Your task to perform on an android device: Go to network settings Image 0: 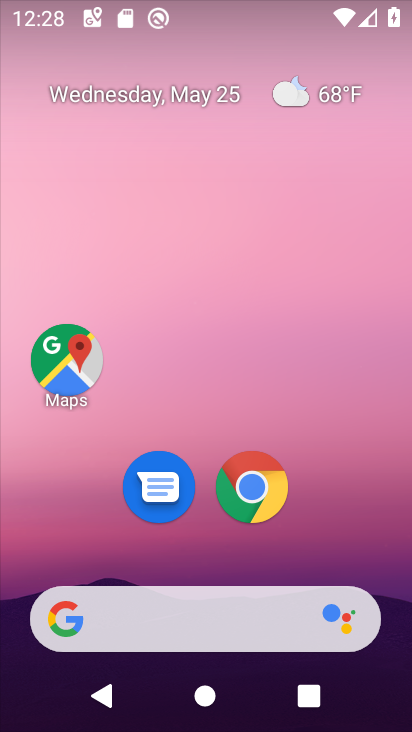
Step 0: drag from (204, 537) to (265, 80)
Your task to perform on an android device: Go to network settings Image 1: 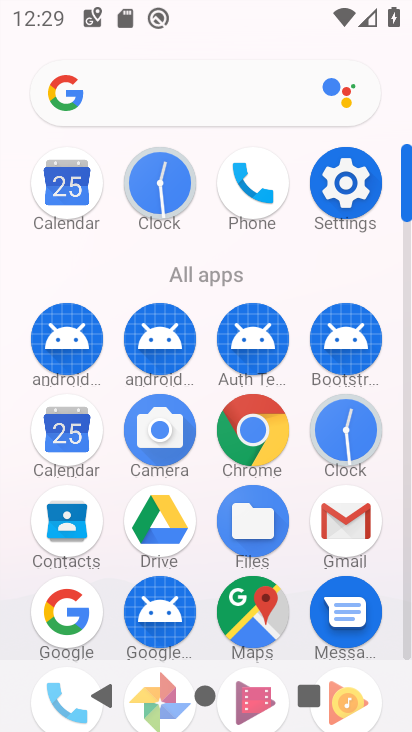
Step 1: click (344, 196)
Your task to perform on an android device: Go to network settings Image 2: 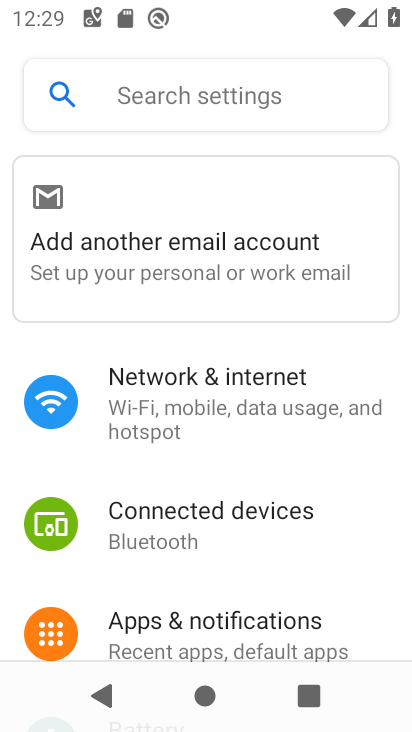
Step 2: click (170, 421)
Your task to perform on an android device: Go to network settings Image 3: 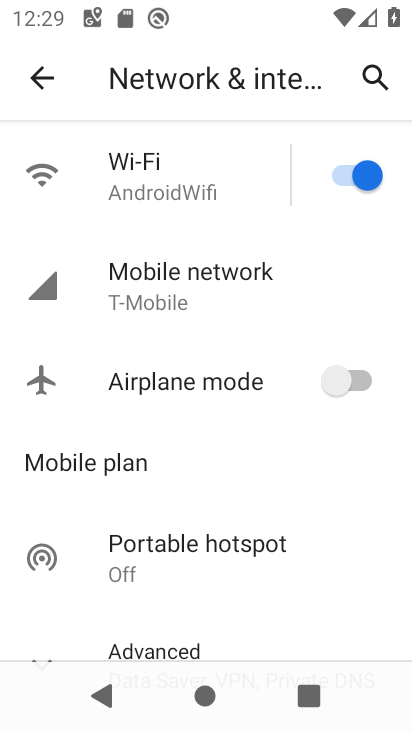
Step 3: click (209, 275)
Your task to perform on an android device: Go to network settings Image 4: 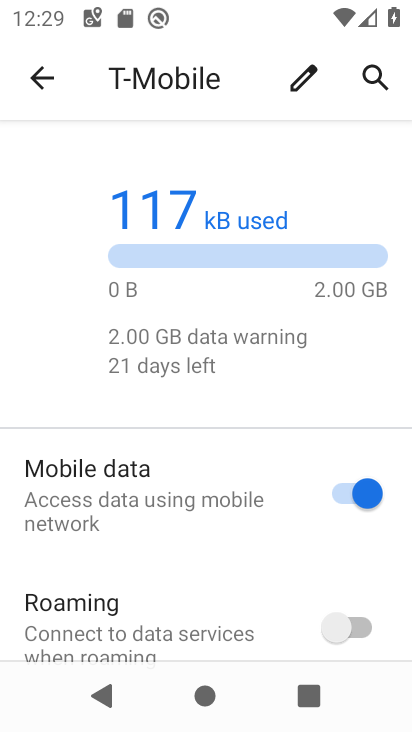
Step 4: task complete